Your task to perform on an android device: Search for sushi restaurants on Maps Image 0: 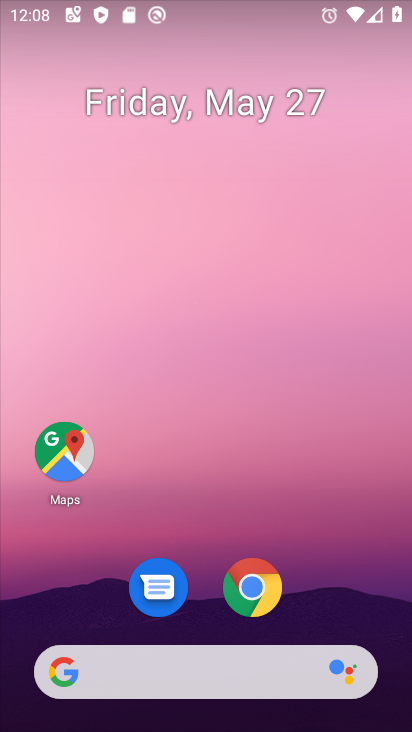
Step 0: drag from (261, 679) to (257, 90)
Your task to perform on an android device: Search for sushi restaurants on Maps Image 1: 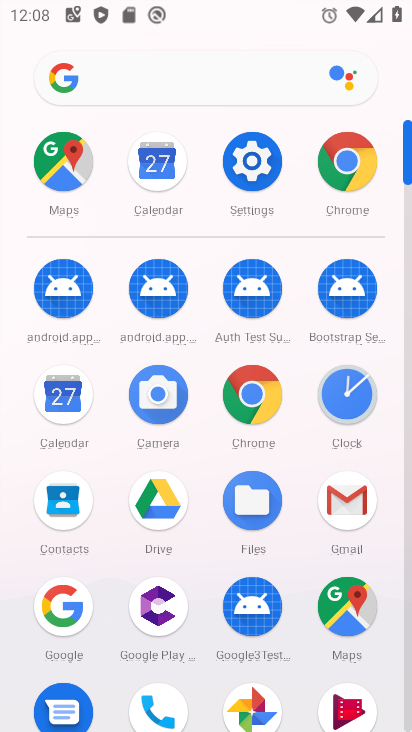
Step 1: click (64, 163)
Your task to perform on an android device: Search for sushi restaurants on Maps Image 2: 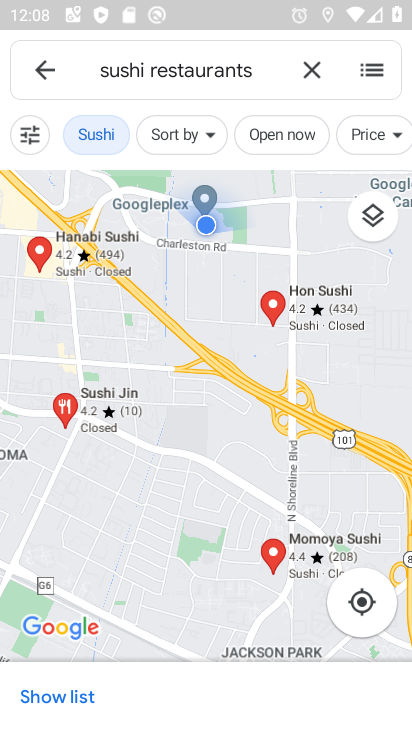
Step 2: task complete